Your task to perform on an android device: change the clock display to analog Image 0: 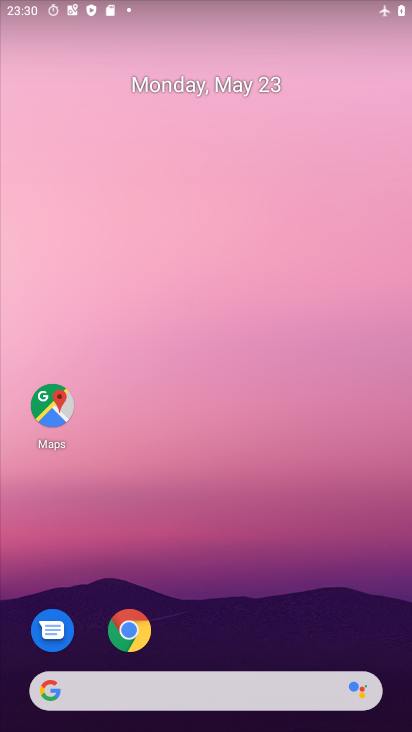
Step 0: drag from (272, 652) to (342, 10)
Your task to perform on an android device: change the clock display to analog Image 1: 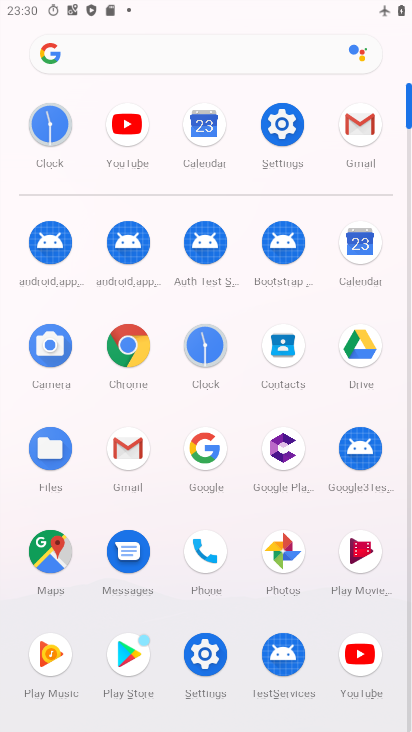
Step 1: click (50, 130)
Your task to perform on an android device: change the clock display to analog Image 2: 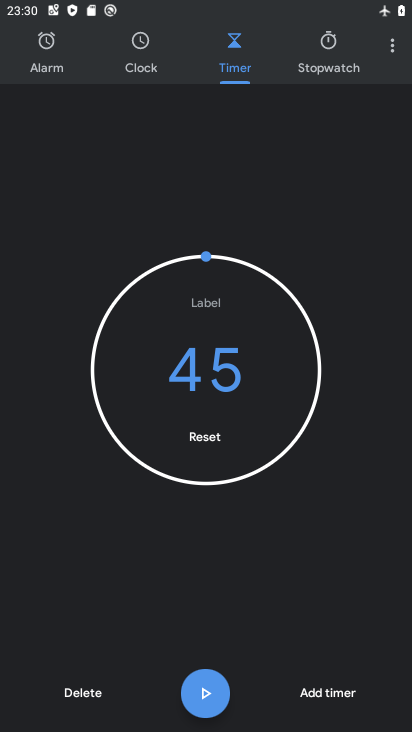
Step 2: click (391, 48)
Your task to perform on an android device: change the clock display to analog Image 3: 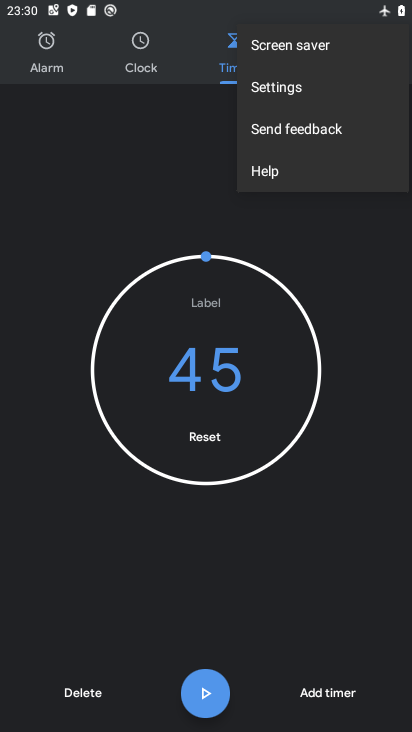
Step 3: click (276, 87)
Your task to perform on an android device: change the clock display to analog Image 4: 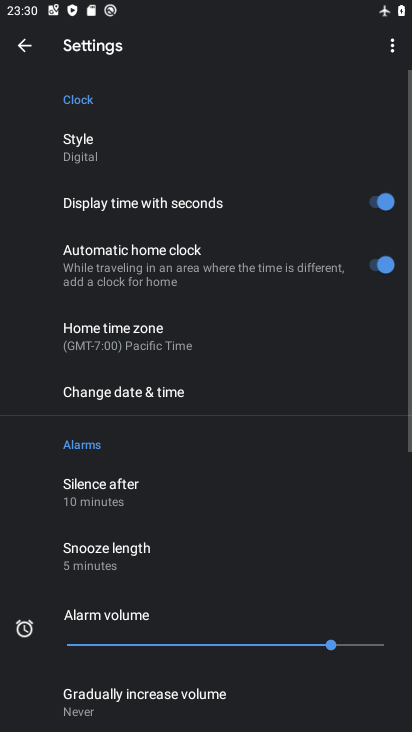
Step 4: click (82, 149)
Your task to perform on an android device: change the clock display to analog Image 5: 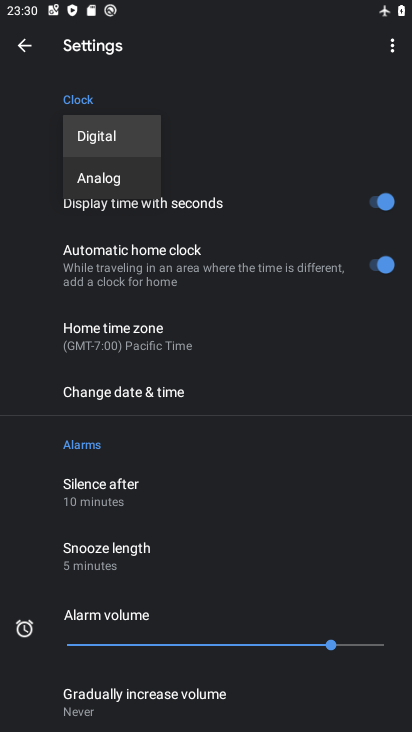
Step 5: click (81, 187)
Your task to perform on an android device: change the clock display to analog Image 6: 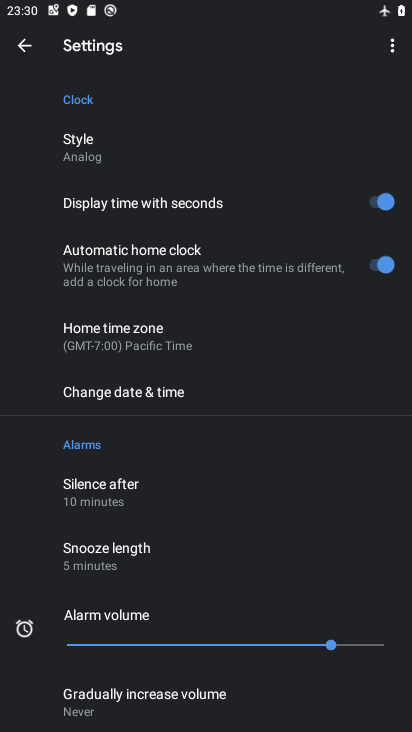
Step 6: task complete